Your task to perform on an android device: turn off improve location accuracy Image 0: 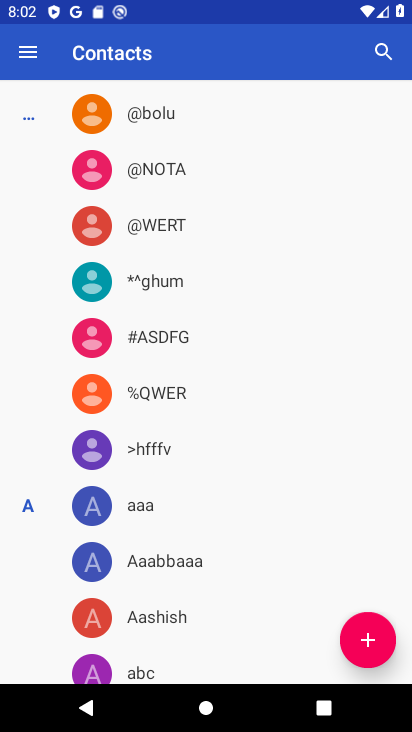
Step 0: press home button
Your task to perform on an android device: turn off improve location accuracy Image 1: 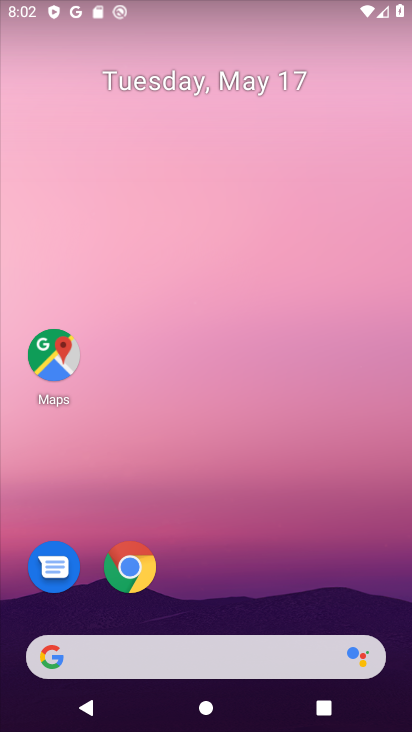
Step 1: drag from (187, 581) to (264, 0)
Your task to perform on an android device: turn off improve location accuracy Image 2: 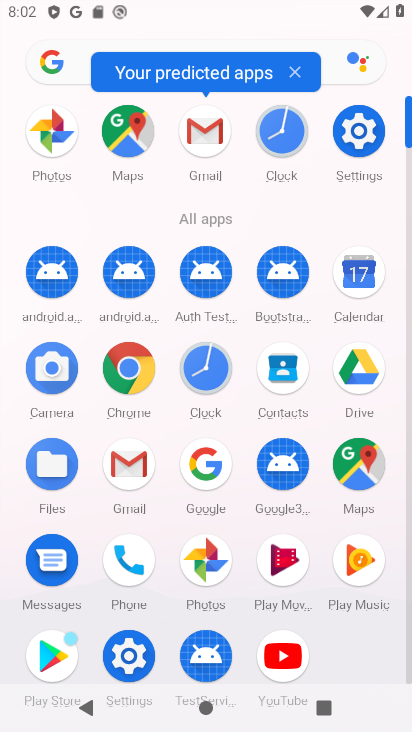
Step 2: click (130, 680)
Your task to perform on an android device: turn off improve location accuracy Image 3: 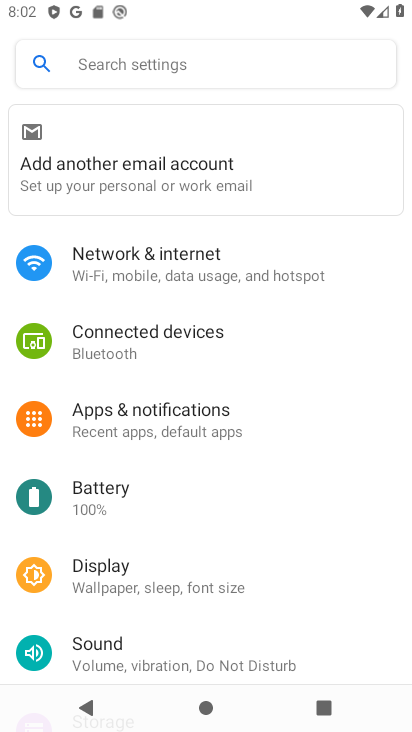
Step 3: drag from (154, 598) to (332, 108)
Your task to perform on an android device: turn off improve location accuracy Image 4: 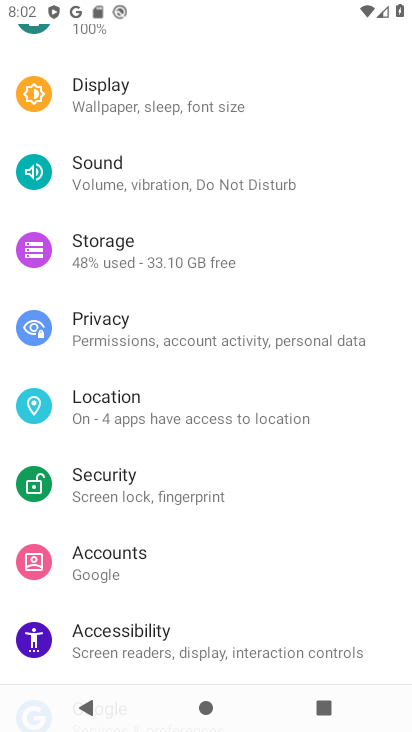
Step 4: click (118, 398)
Your task to perform on an android device: turn off improve location accuracy Image 5: 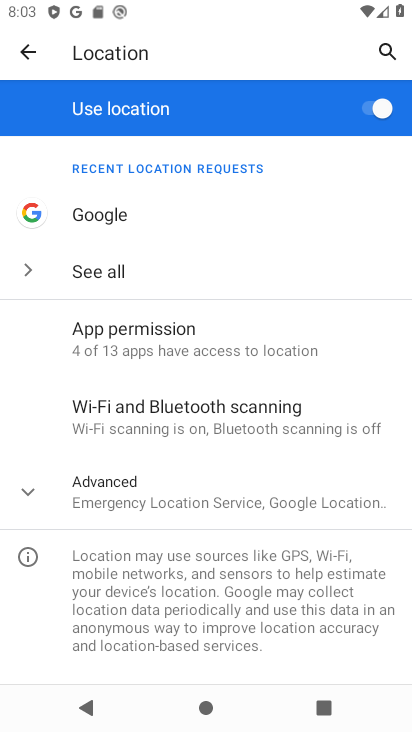
Step 5: click (185, 488)
Your task to perform on an android device: turn off improve location accuracy Image 6: 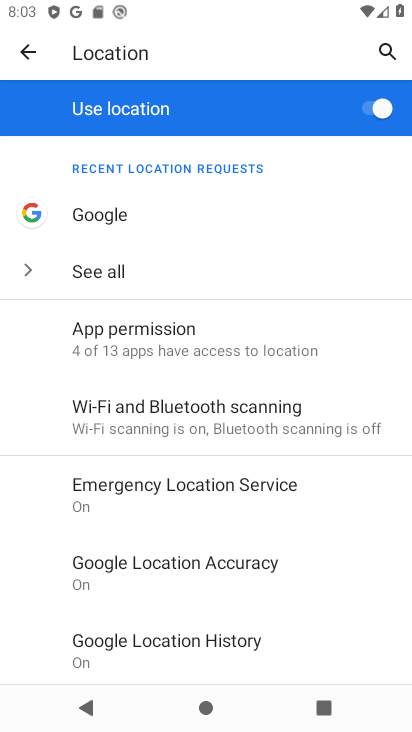
Step 6: click (228, 585)
Your task to perform on an android device: turn off improve location accuracy Image 7: 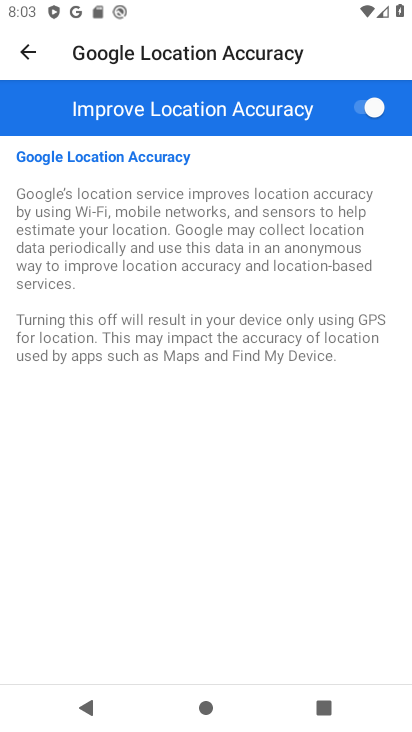
Step 7: click (349, 102)
Your task to perform on an android device: turn off improve location accuracy Image 8: 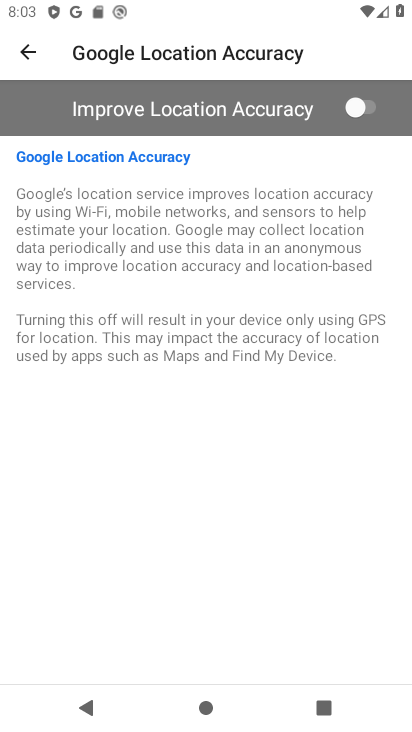
Step 8: task complete